Your task to perform on an android device: change keyboard looks Image 0: 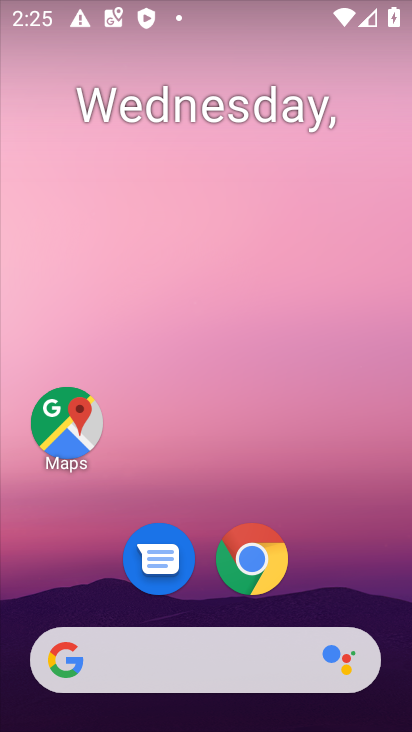
Step 0: drag from (196, 619) to (205, 62)
Your task to perform on an android device: change keyboard looks Image 1: 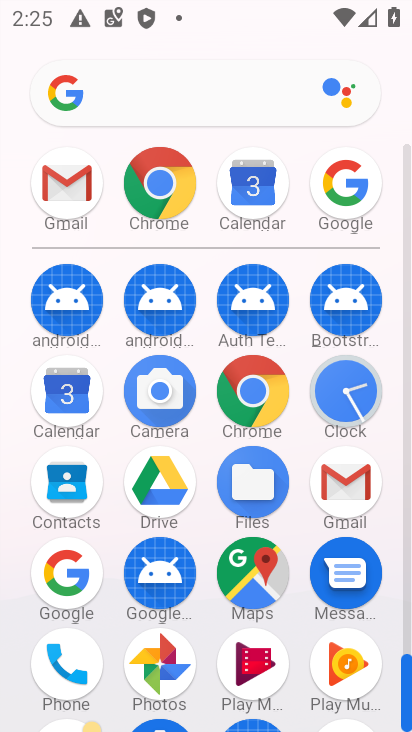
Step 1: drag from (202, 628) to (200, 245)
Your task to perform on an android device: change keyboard looks Image 2: 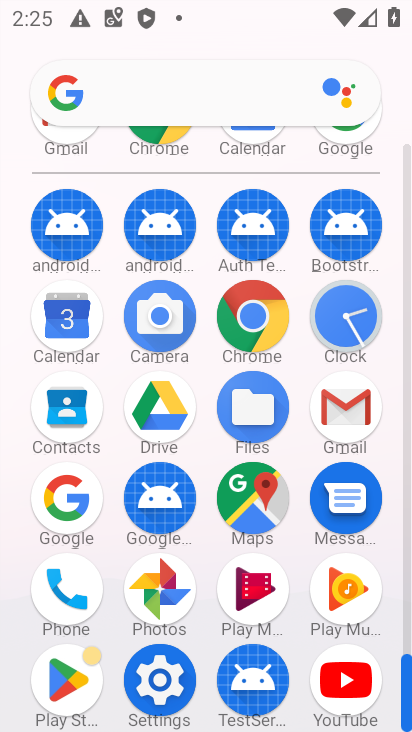
Step 2: click (152, 684)
Your task to perform on an android device: change keyboard looks Image 3: 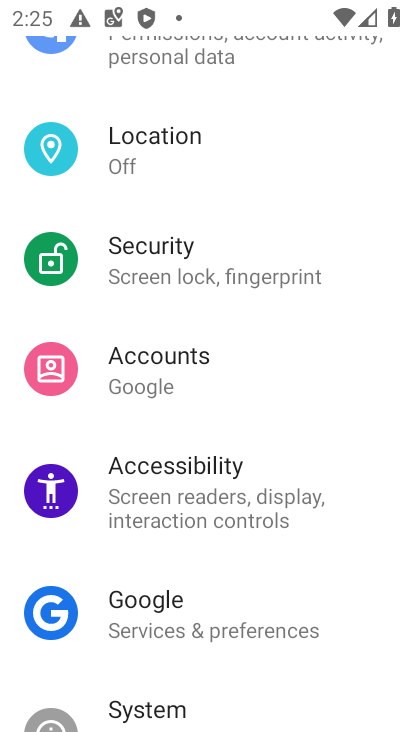
Step 3: drag from (150, 675) to (154, 220)
Your task to perform on an android device: change keyboard looks Image 4: 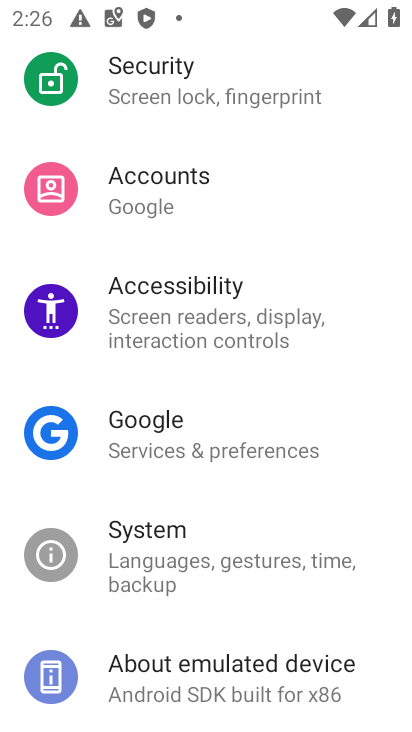
Step 4: click (228, 685)
Your task to perform on an android device: change keyboard looks Image 5: 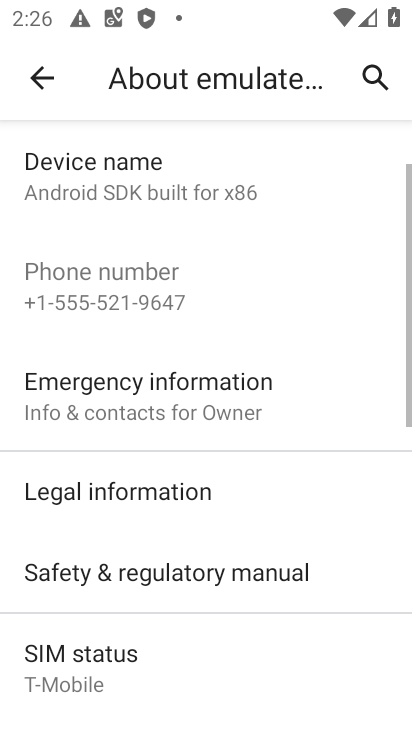
Step 5: drag from (157, 653) to (162, 164)
Your task to perform on an android device: change keyboard looks Image 6: 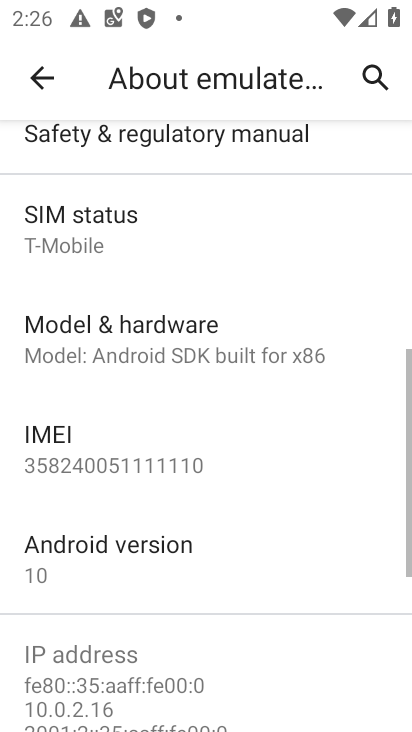
Step 6: drag from (169, 681) to (172, 294)
Your task to perform on an android device: change keyboard looks Image 7: 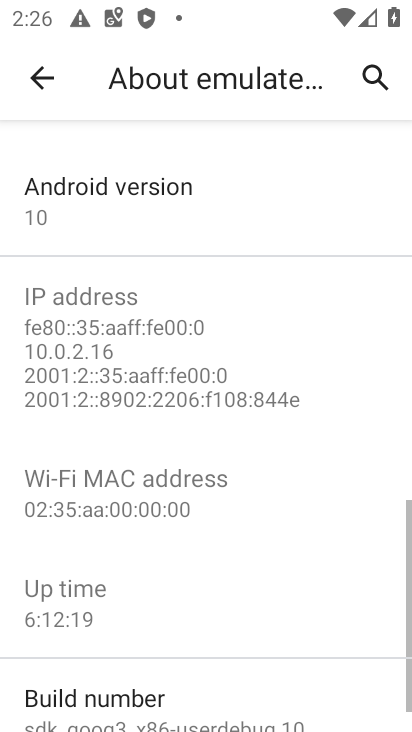
Step 7: click (45, 86)
Your task to perform on an android device: change keyboard looks Image 8: 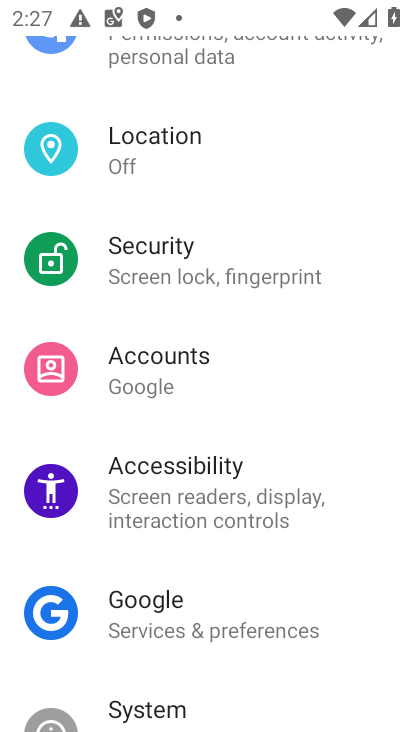
Step 8: drag from (170, 670) to (178, 309)
Your task to perform on an android device: change keyboard looks Image 9: 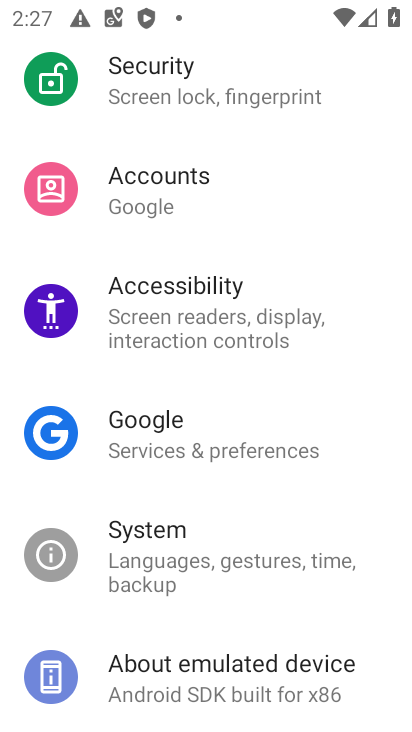
Step 9: click (211, 676)
Your task to perform on an android device: change keyboard looks Image 10: 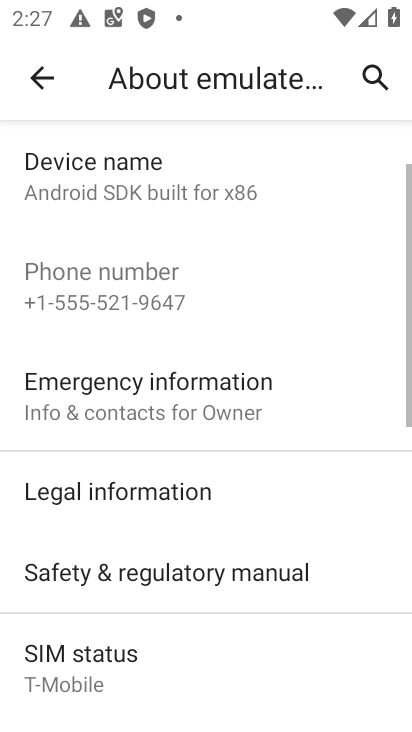
Step 10: drag from (139, 647) to (138, 354)
Your task to perform on an android device: change keyboard looks Image 11: 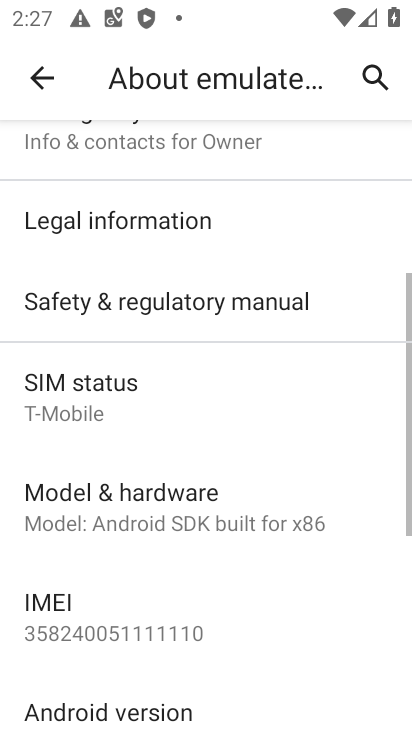
Step 11: drag from (169, 660) to (169, 436)
Your task to perform on an android device: change keyboard looks Image 12: 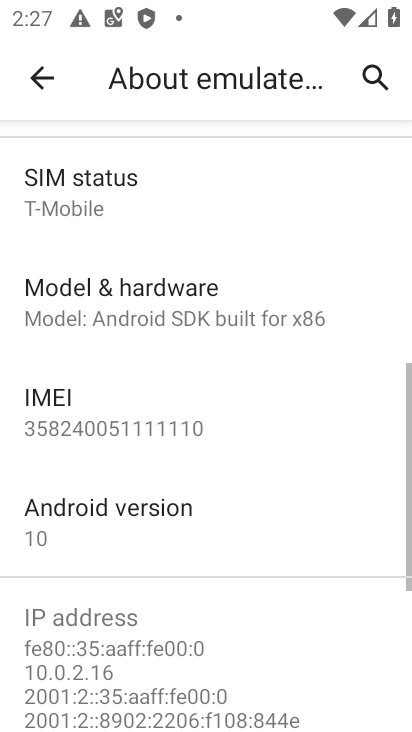
Step 12: click (45, 79)
Your task to perform on an android device: change keyboard looks Image 13: 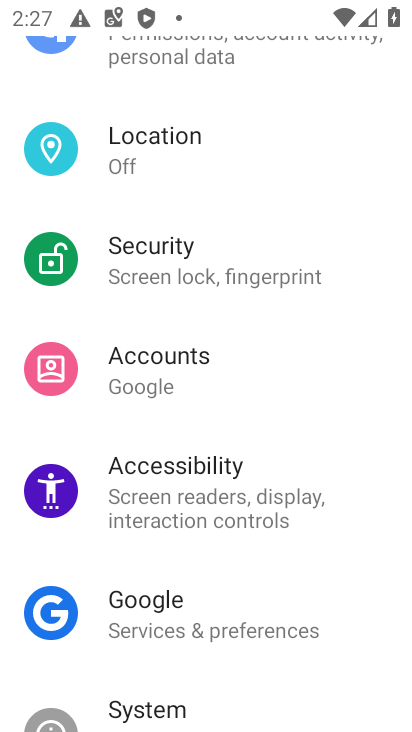
Step 13: drag from (169, 647) to (169, 250)
Your task to perform on an android device: change keyboard looks Image 14: 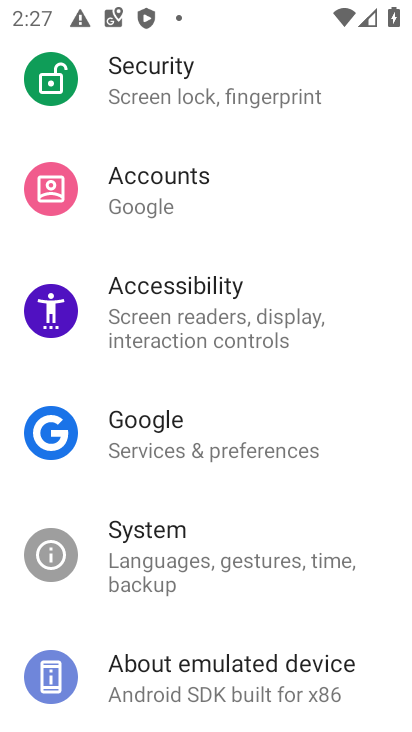
Step 14: click (137, 550)
Your task to perform on an android device: change keyboard looks Image 15: 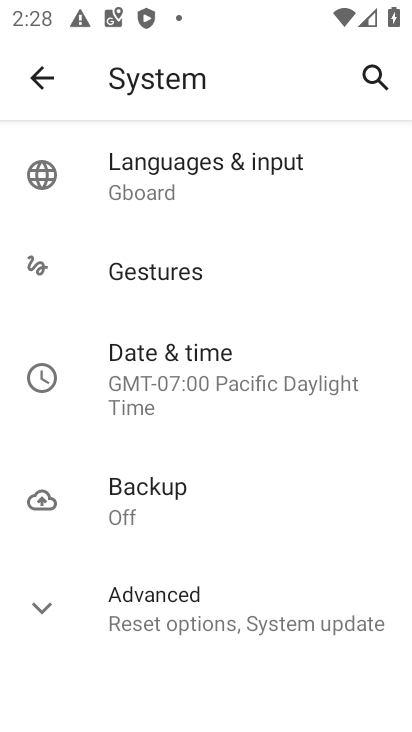
Step 15: drag from (163, 600) to (161, 641)
Your task to perform on an android device: change keyboard looks Image 16: 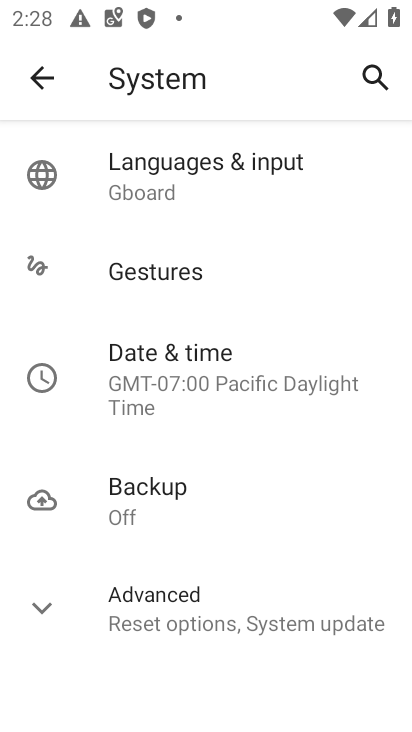
Step 16: click (142, 177)
Your task to perform on an android device: change keyboard looks Image 17: 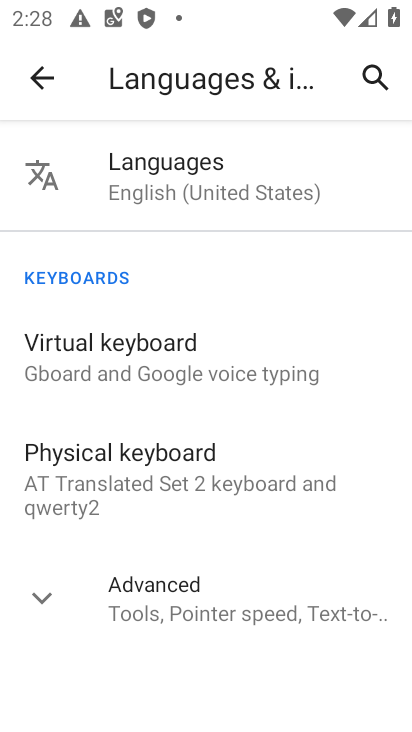
Step 17: click (120, 359)
Your task to perform on an android device: change keyboard looks Image 18: 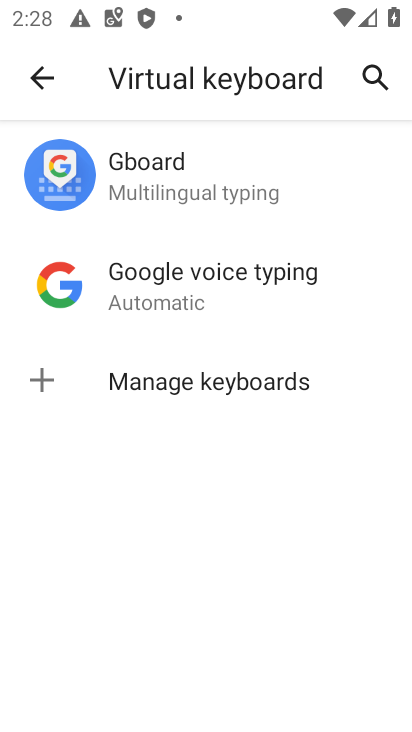
Step 18: click (146, 179)
Your task to perform on an android device: change keyboard looks Image 19: 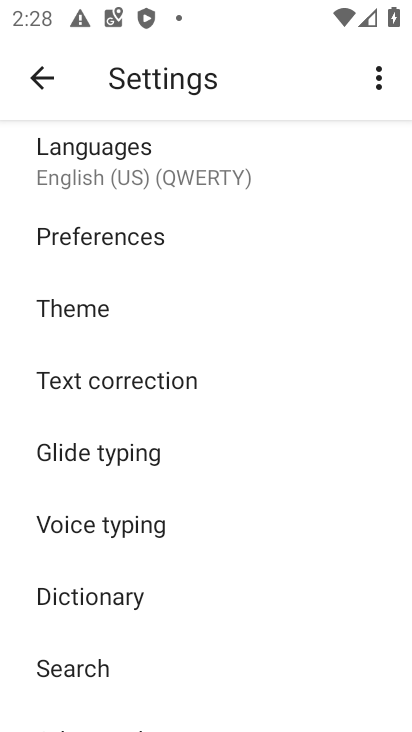
Step 19: click (66, 309)
Your task to perform on an android device: change keyboard looks Image 20: 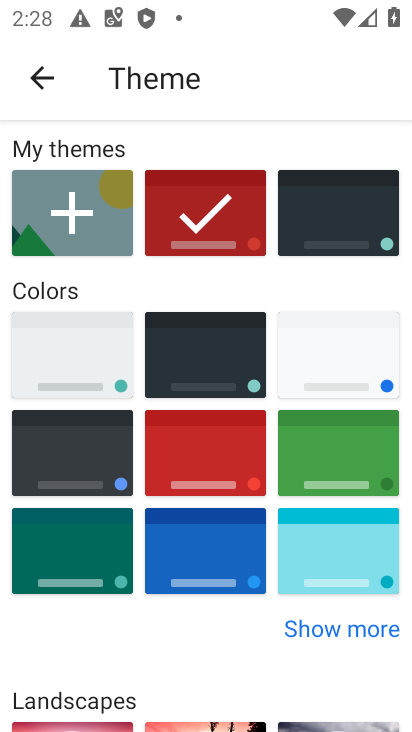
Step 20: click (219, 367)
Your task to perform on an android device: change keyboard looks Image 21: 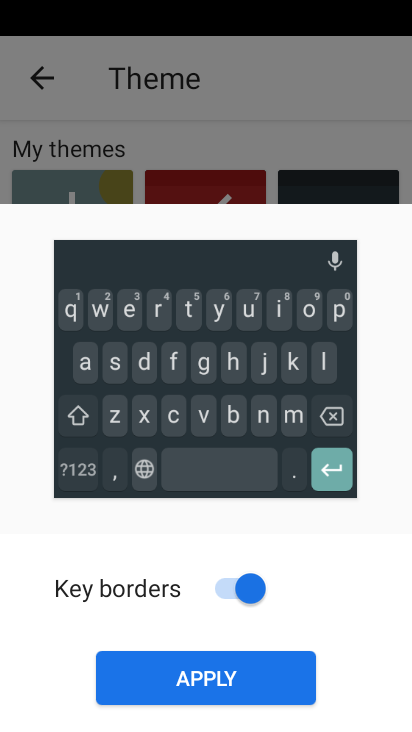
Step 21: click (225, 682)
Your task to perform on an android device: change keyboard looks Image 22: 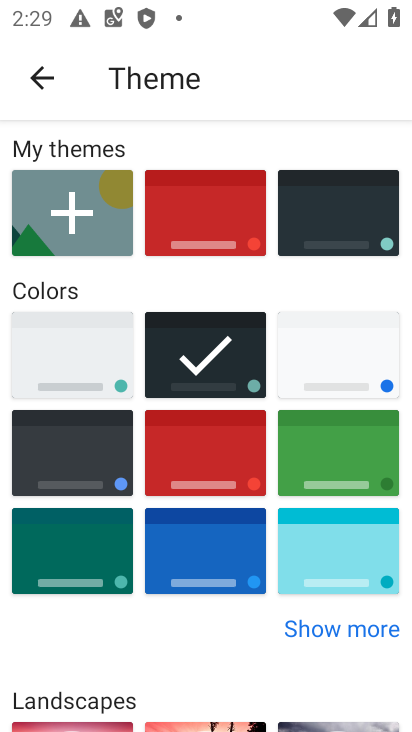
Step 22: click (327, 466)
Your task to perform on an android device: change keyboard looks Image 23: 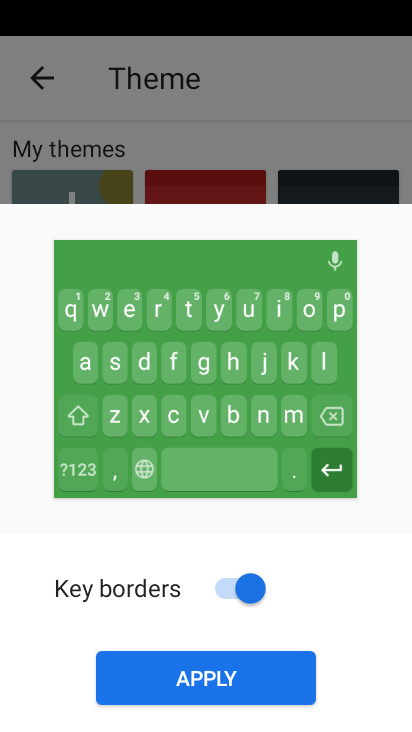
Step 23: click (200, 672)
Your task to perform on an android device: change keyboard looks Image 24: 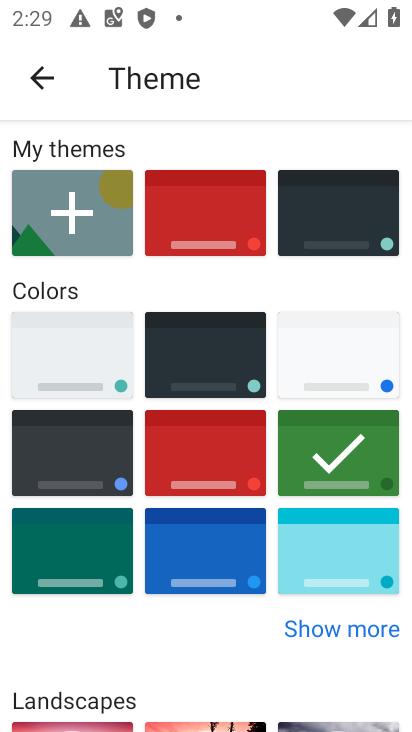
Step 24: task complete